Your task to perform on an android device: toggle notification dots Image 0: 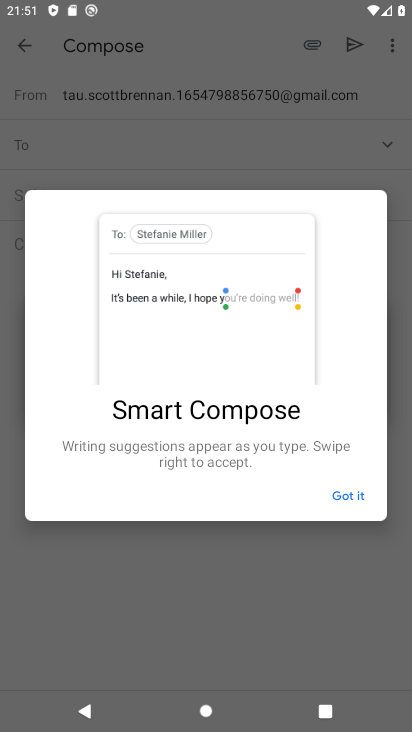
Step 0: press home button
Your task to perform on an android device: toggle notification dots Image 1: 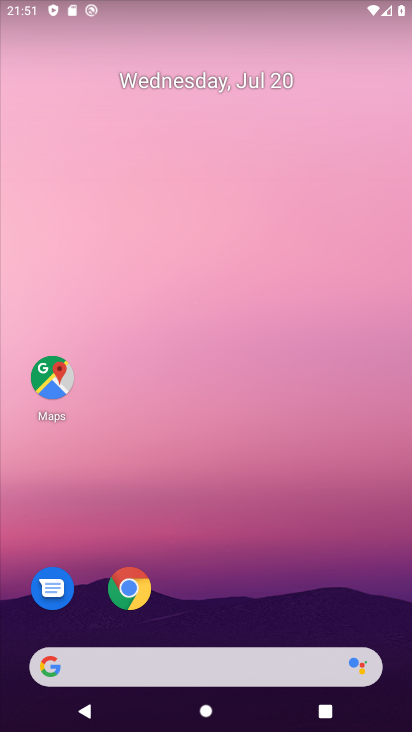
Step 1: drag from (382, 626) to (348, 195)
Your task to perform on an android device: toggle notification dots Image 2: 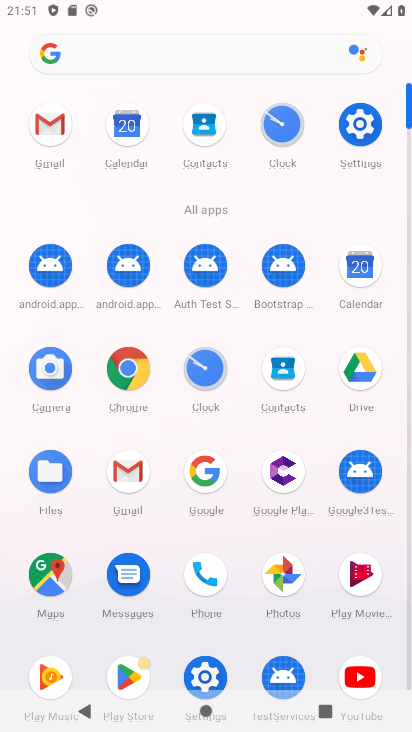
Step 2: click (204, 673)
Your task to perform on an android device: toggle notification dots Image 3: 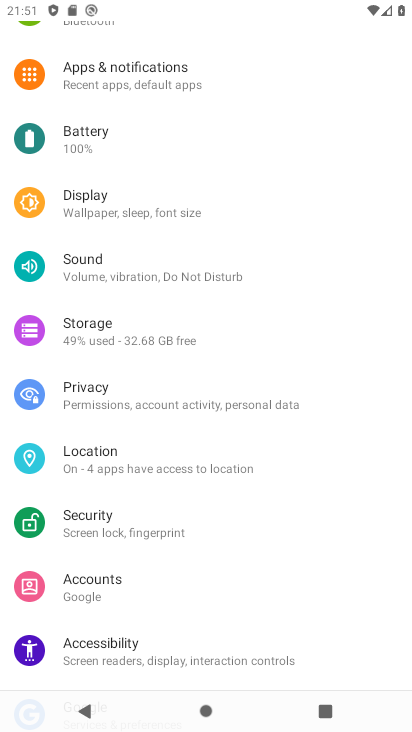
Step 3: click (120, 70)
Your task to perform on an android device: toggle notification dots Image 4: 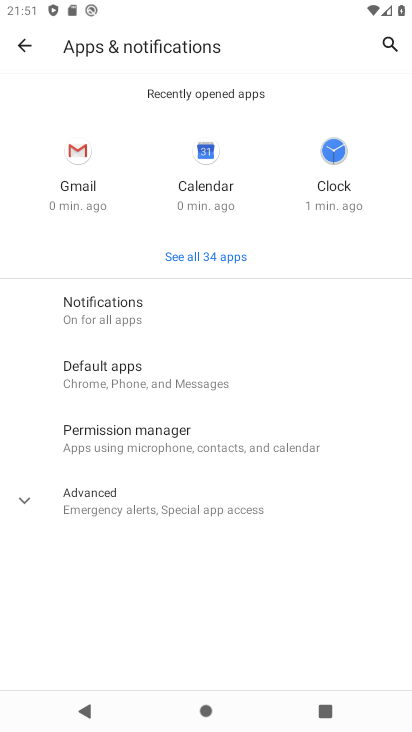
Step 4: click (92, 313)
Your task to perform on an android device: toggle notification dots Image 5: 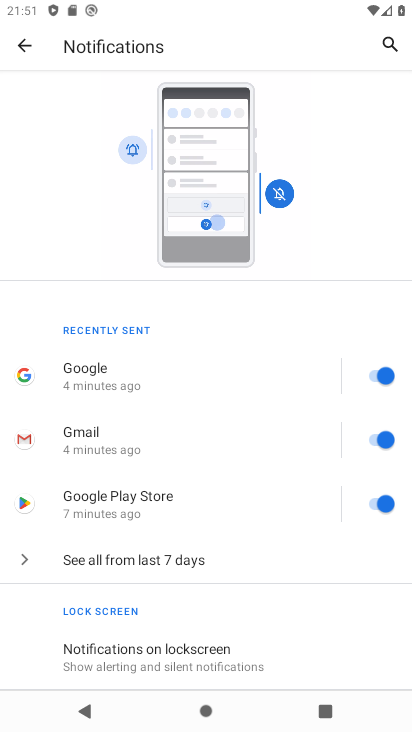
Step 5: drag from (271, 659) to (334, 221)
Your task to perform on an android device: toggle notification dots Image 6: 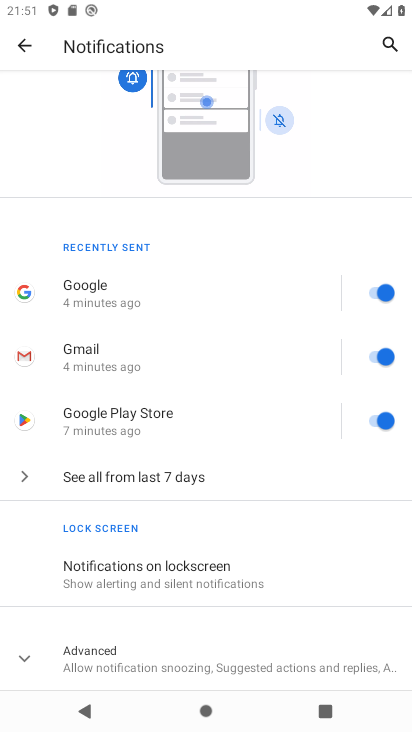
Step 6: click (50, 659)
Your task to perform on an android device: toggle notification dots Image 7: 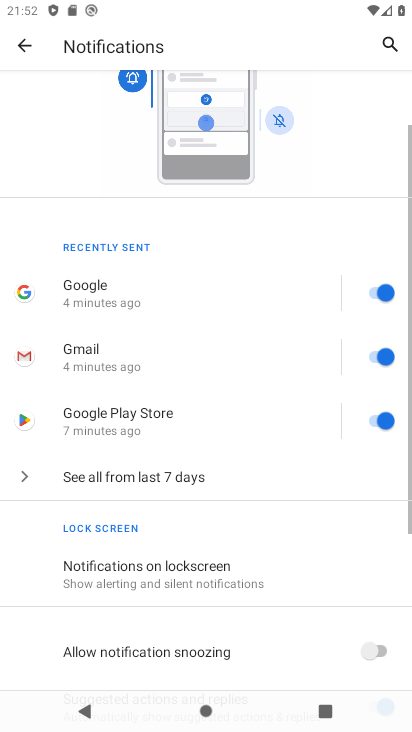
Step 7: drag from (330, 618) to (298, 174)
Your task to perform on an android device: toggle notification dots Image 8: 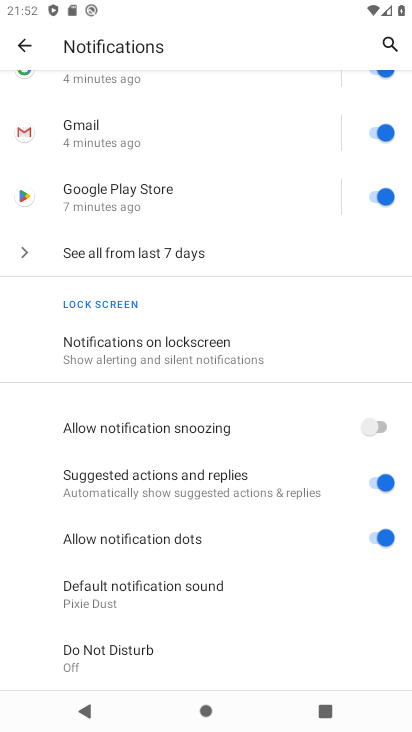
Step 8: click (372, 536)
Your task to perform on an android device: toggle notification dots Image 9: 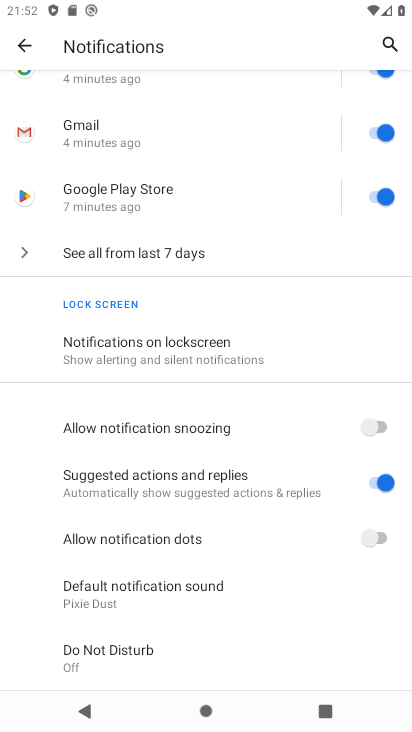
Step 9: task complete